Your task to perform on an android device: Open calendar and show me the fourth week of next month Image 0: 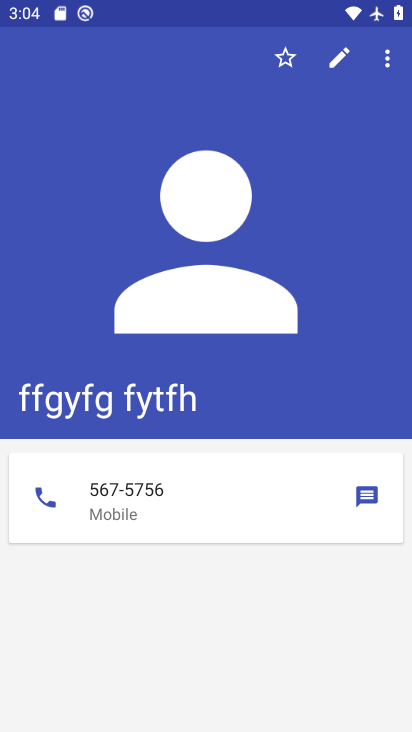
Step 0: press home button
Your task to perform on an android device: Open calendar and show me the fourth week of next month Image 1: 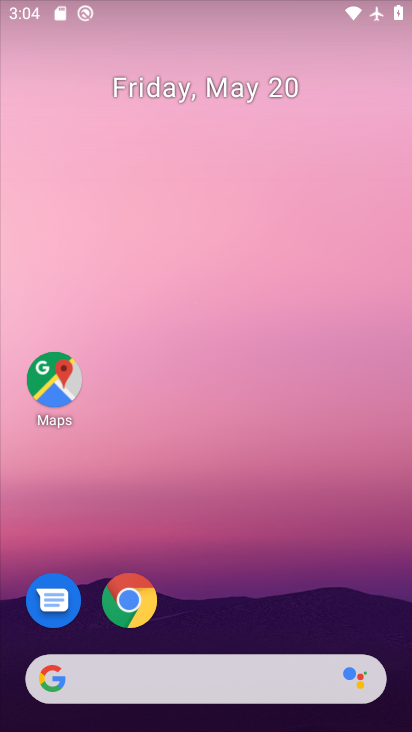
Step 1: drag from (341, 541) to (198, 27)
Your task to perform on an android device: Open calendar and show me the fourth week of next month Image 2: 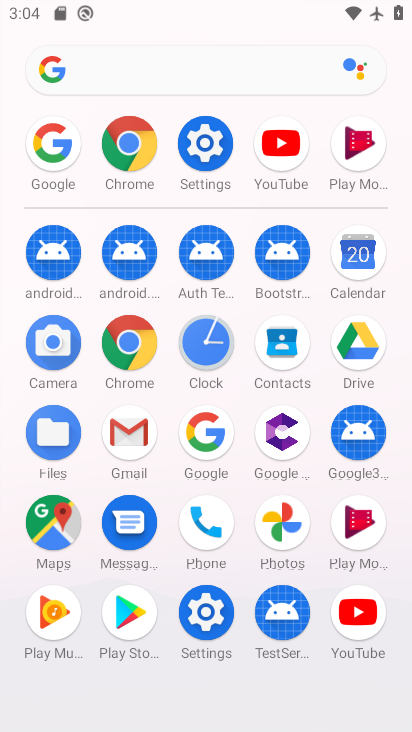
Step 2: click (349, 250)
Your task to perform on an android device: Open calendar and show me the fourth week of next month Image 3: 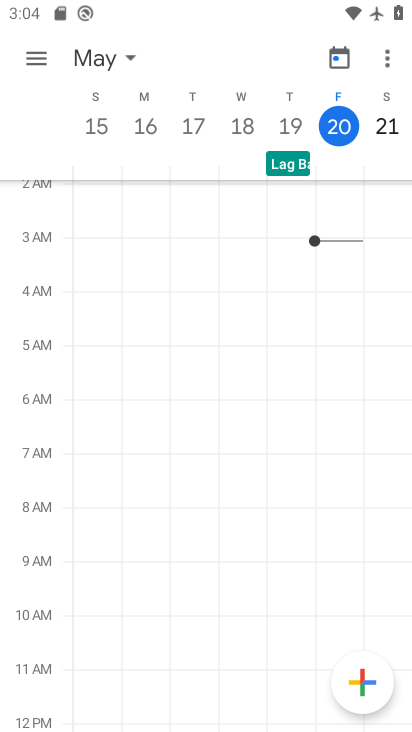
Step 3: click (111, 53)
Your task to perform on an android device: Open calendar and show me the fourth week of next month Image 4: 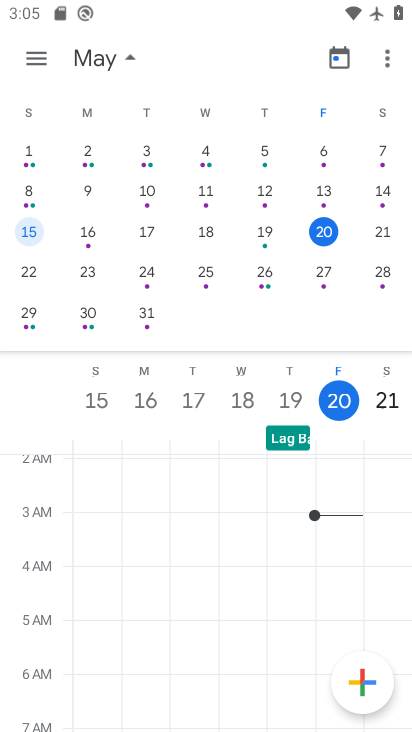
Step 4: drag from (371, 237) to (1, 246)
Your task to perform on an android device: Open calendar and show me the fourth week of next month Image 5: 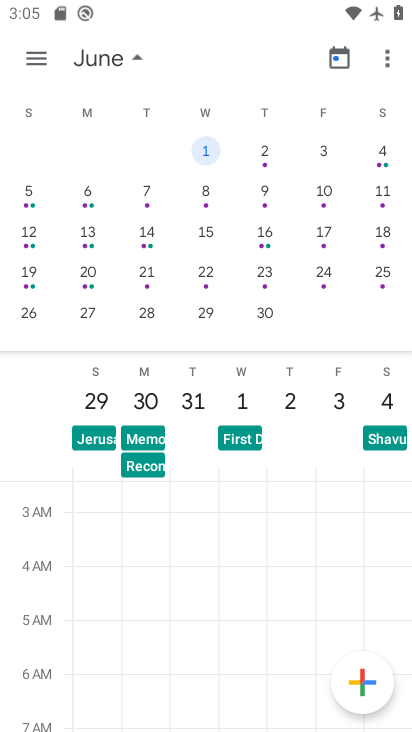
Step 5: click (36, 268)
Your task to perform on an android device: Open calendar and show me the fourth week of next month Image 6: 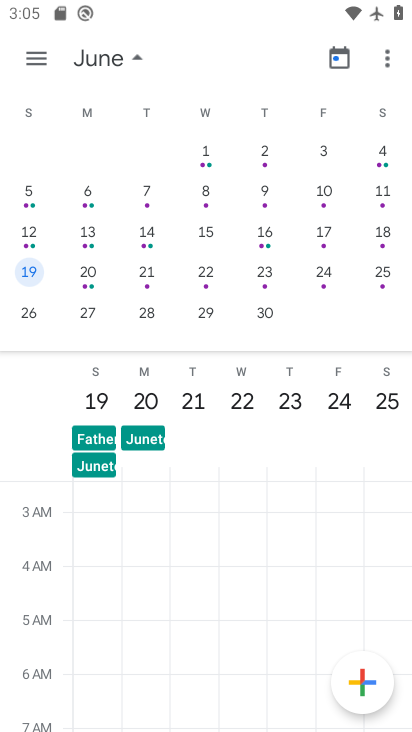
Step 6: task complete